Your task to perform on an android device: Open wifi settings Image 0: 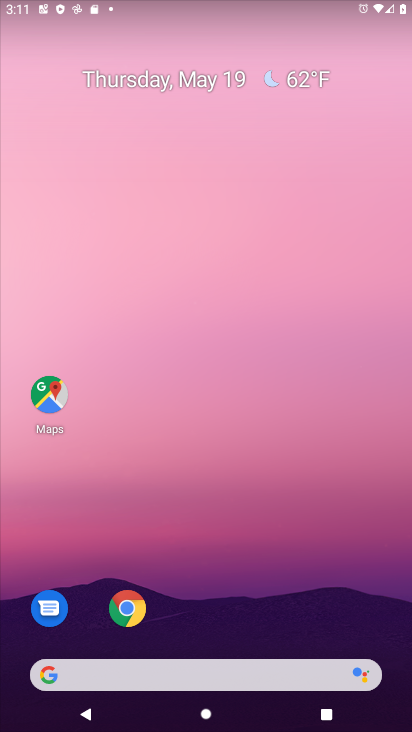
Step 0: drag from (235, 599) to (233, 43)
Your task to perform on an android device: Open wifi settings Image 1: 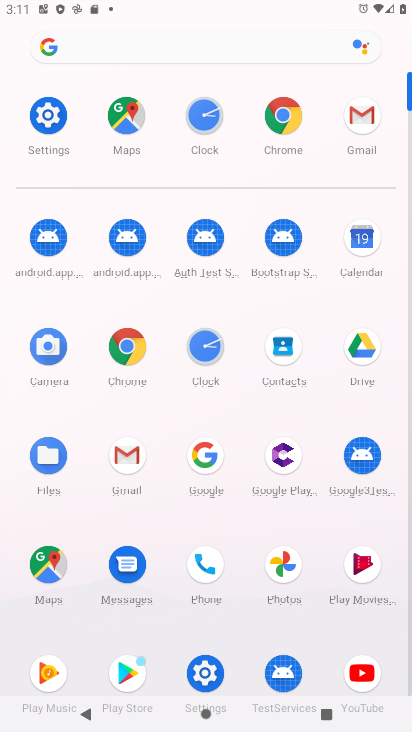
Step 1: click (63, 140)
Your task to perform on an android device: Open wifi settings Image 2: 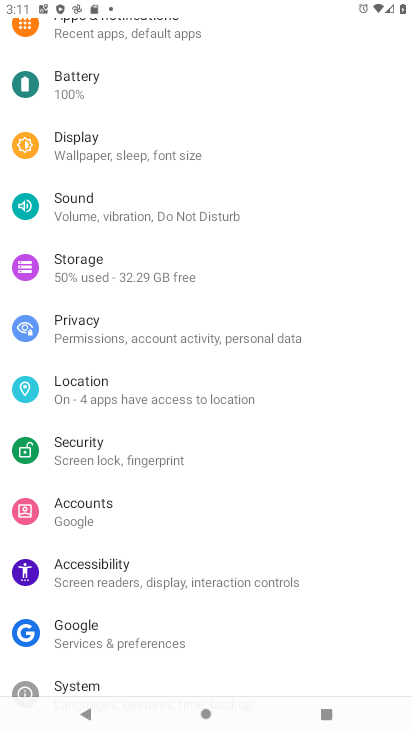
Step 2: drag from (134, 139) to (171, 372)
Your task to perform on an android device: Open wifi settings Image 3: 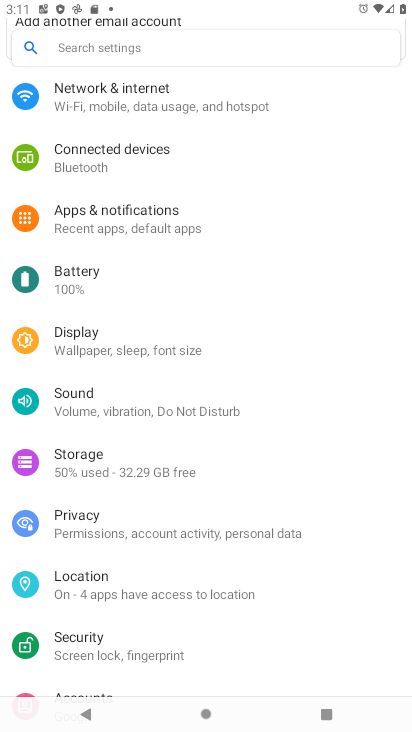
Step 3: click (162, 115)
Your task to perform on an android device: Open wifi settings Image 4: 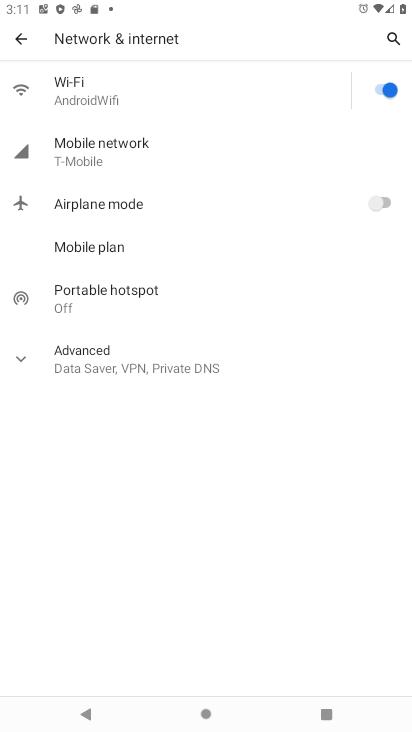
Step 4: task complete